Your task to perform on an android device: Go to internet settings Image 0: 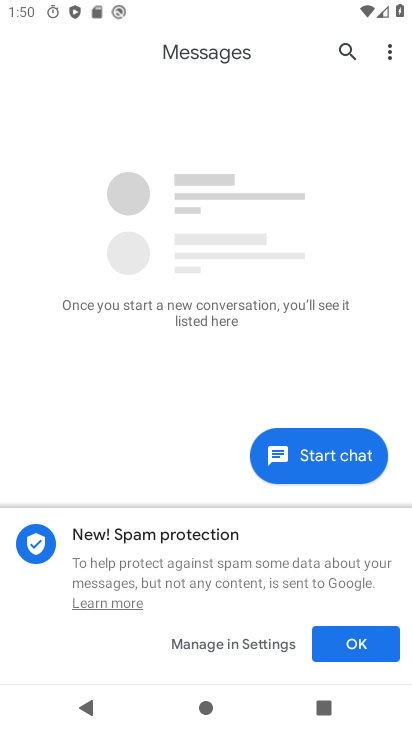
Step 0: press home button
Your task to perform on an android device: Go to internet settings Image 1: 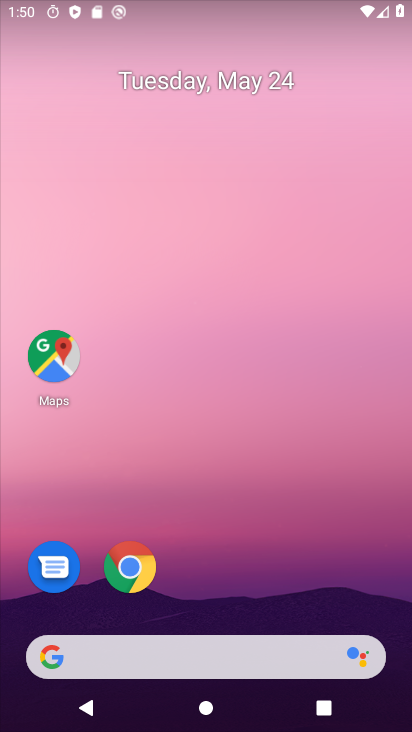
Step 1: drag from (250, 622) to (268, 3)
Your task to perform on an android device: Go to internet settings Image 2: 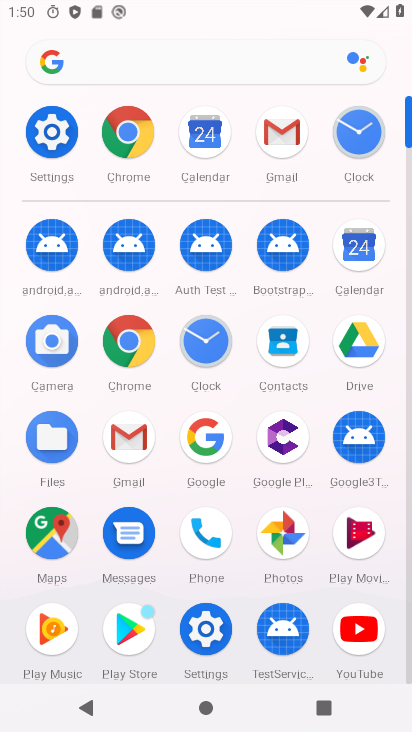
Step 2: click (210, 638)
Your task to perform on an android device: Go to internet settings Image 3: 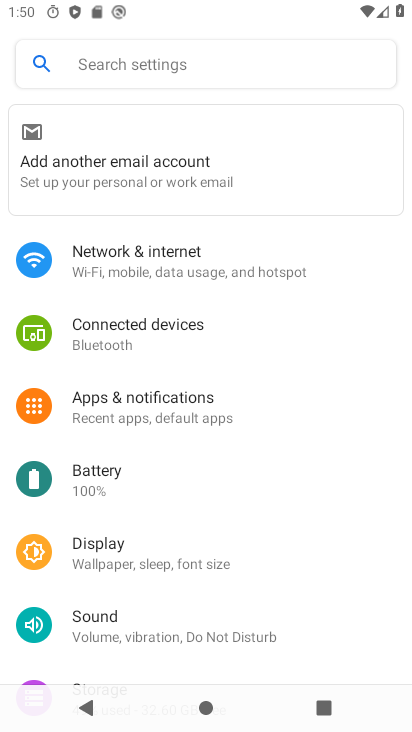
Step 3: click (179, 270)
Your task to perform on an android device: Go to internet settings Image 4: 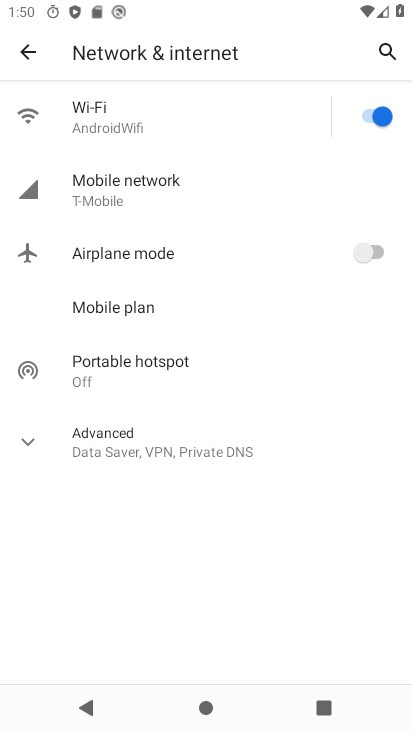
Step 4: task complete